Your task to perform on an android device: Open settings on Google Maps Image 0: 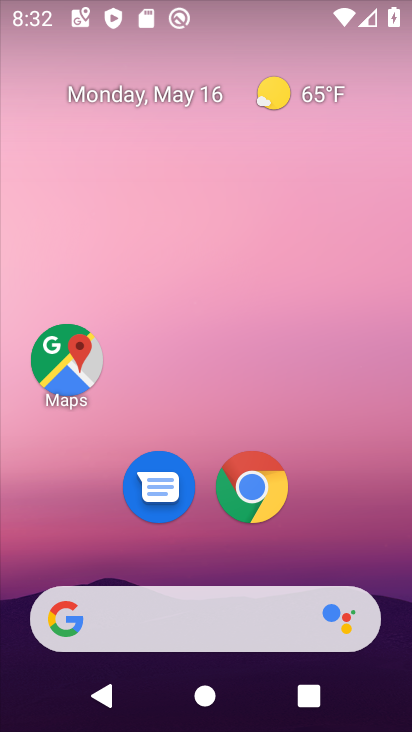
Step 0: drag from (373, 544) to (355, 102)
Your task to perform on an android device: Open settings on Google Maps Image 1: 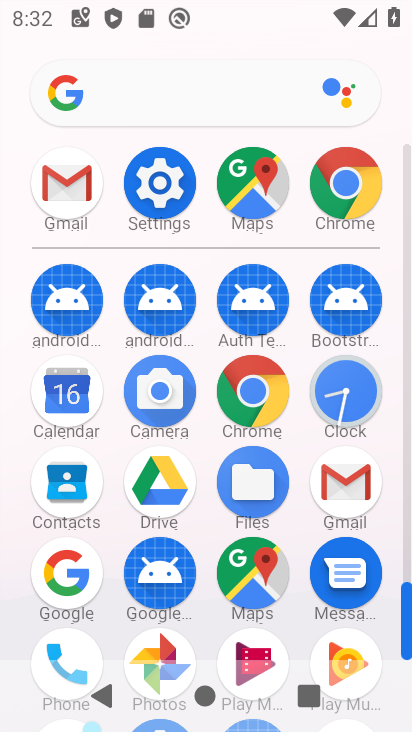
Step 1: click (252, 198)
Your task to perform on an android device: Open settings on Google Maps Image 2: 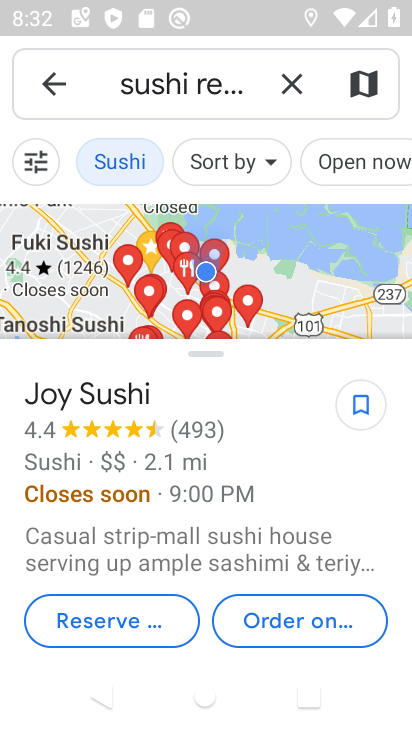
Step 2: click (61, 98)
Your task to perform on an android device: Open settings on Google Maps Image 3: 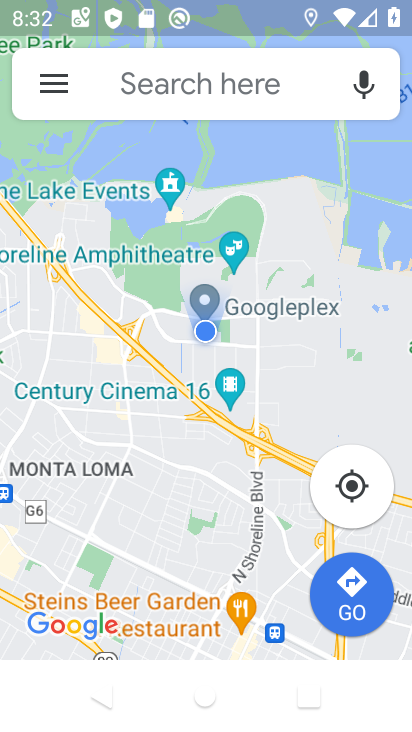
Step 3: click (65, 88)
Your task to perform on an android device: Open settings on Google Maps Image 4: 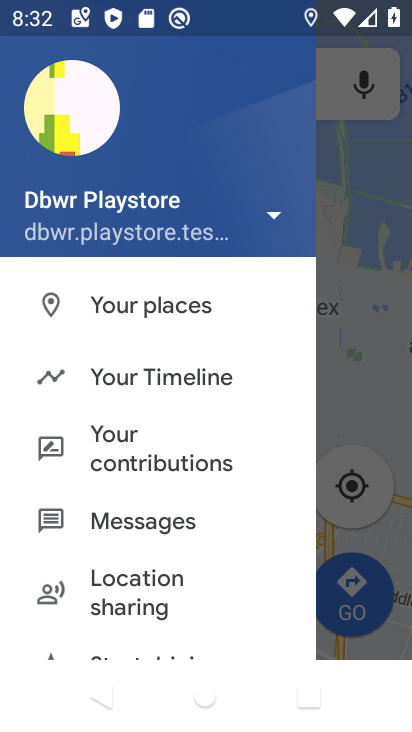
Step 4: drag from (258, 569) to (267, 350)
Your task to perform on an android device: Open settings on Google Maps Image 5: 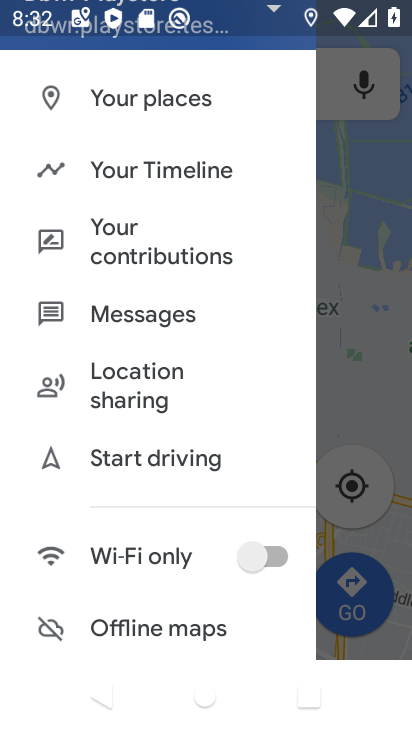
Step 5: drag from (229, 586) to (232, 399)
Your task to perform on an android device: Open settings on Google Maps Image 6: 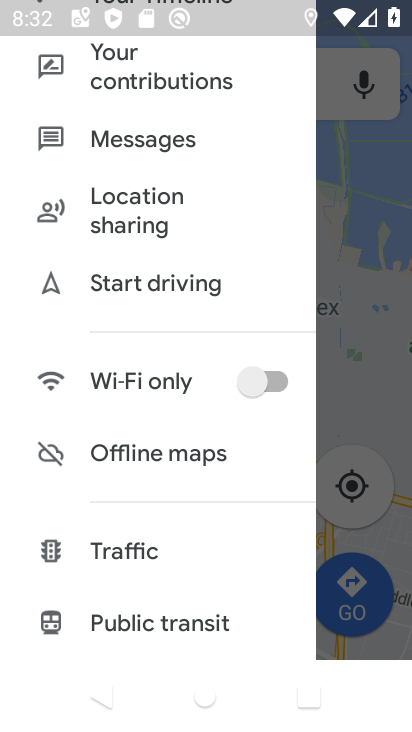
Step 6: drag from (204, 532) to (208, 378)
Your task to perform on an android device: Open settings on Google Maps Image 7: 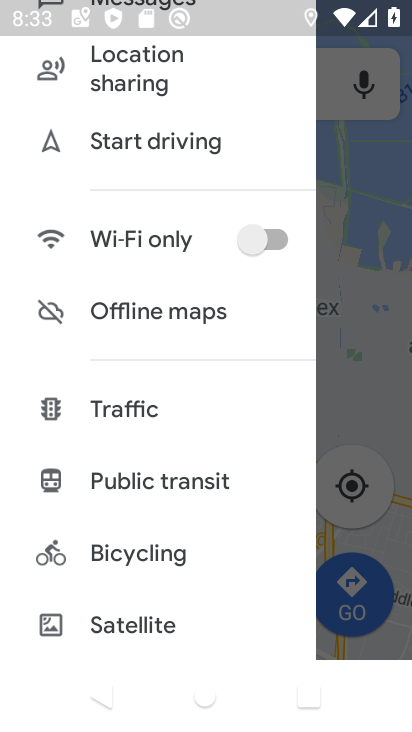
Step 7: drag from (234, 607) to (239, 385)
Your task to perform on an android device: Open settings on Google Maps Image 8: 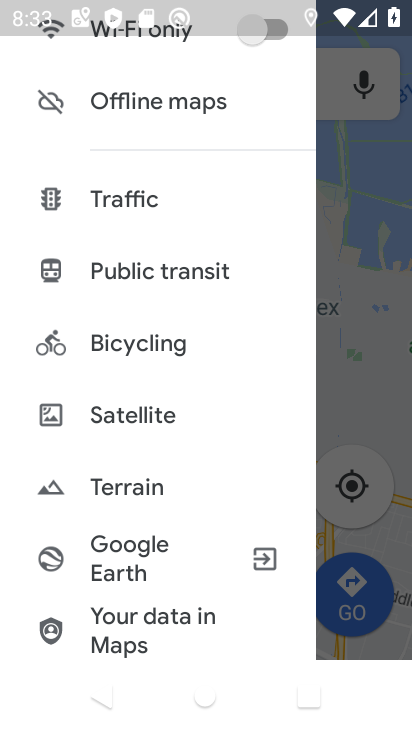
Step 8: drag from (194, 585) to (211, 360)
Your task to perform on an android device: Open settings on Google Maps Image 9: 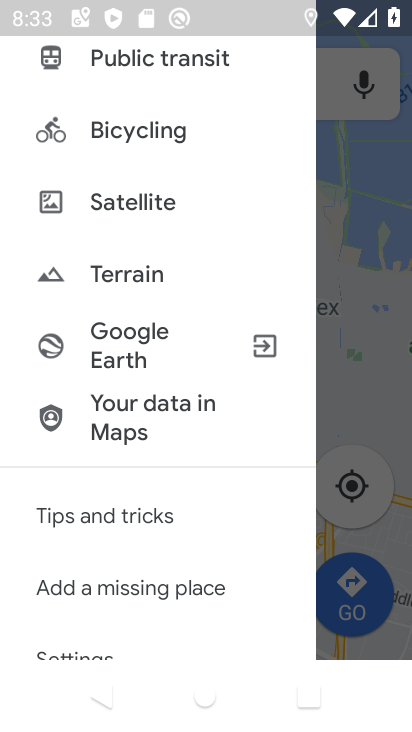
Step 9: drag from (203, 594) to (204, 383)
Your task to perform on an android device: Open settings on Google Maps Image 10: 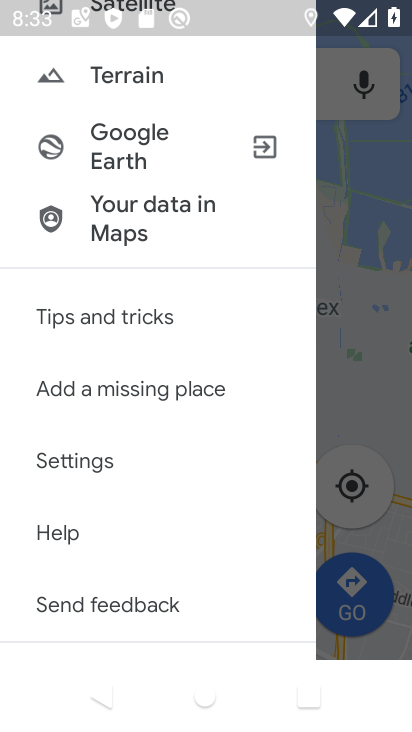
Step 10: click (69, 467)
Your task to perform on an android device: Open settings on Google Maps Image 11: 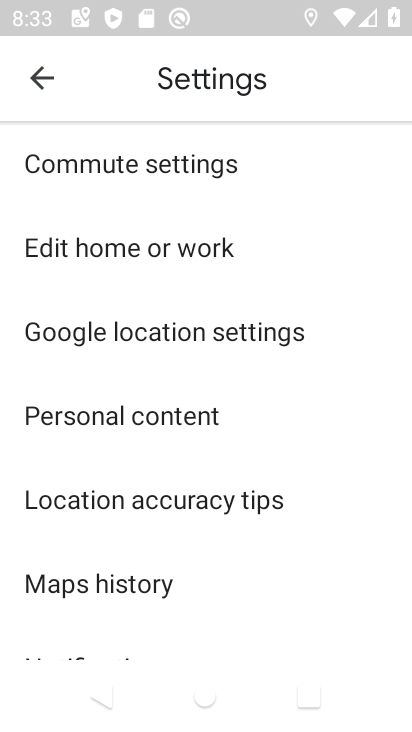
Step 11: task complete